Your task to perform on an android device: Add acer predator to the cart on amazon.com, then select checkout. Image 0: 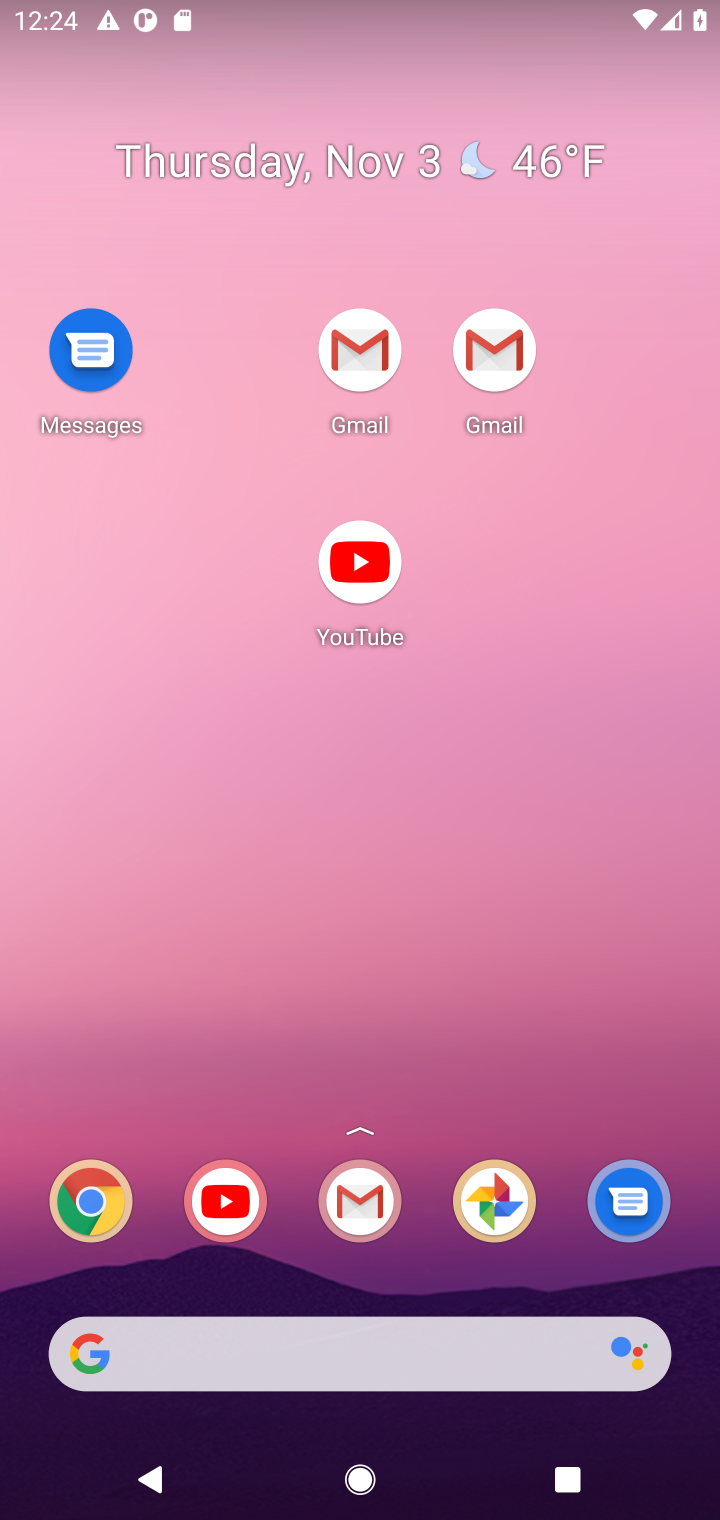
Step 0: drag from (412, 1303) to (520, 90)
Your task to perform on an android device: Add acer predator to the cart on amazon.com, then select checkout. Image 1: 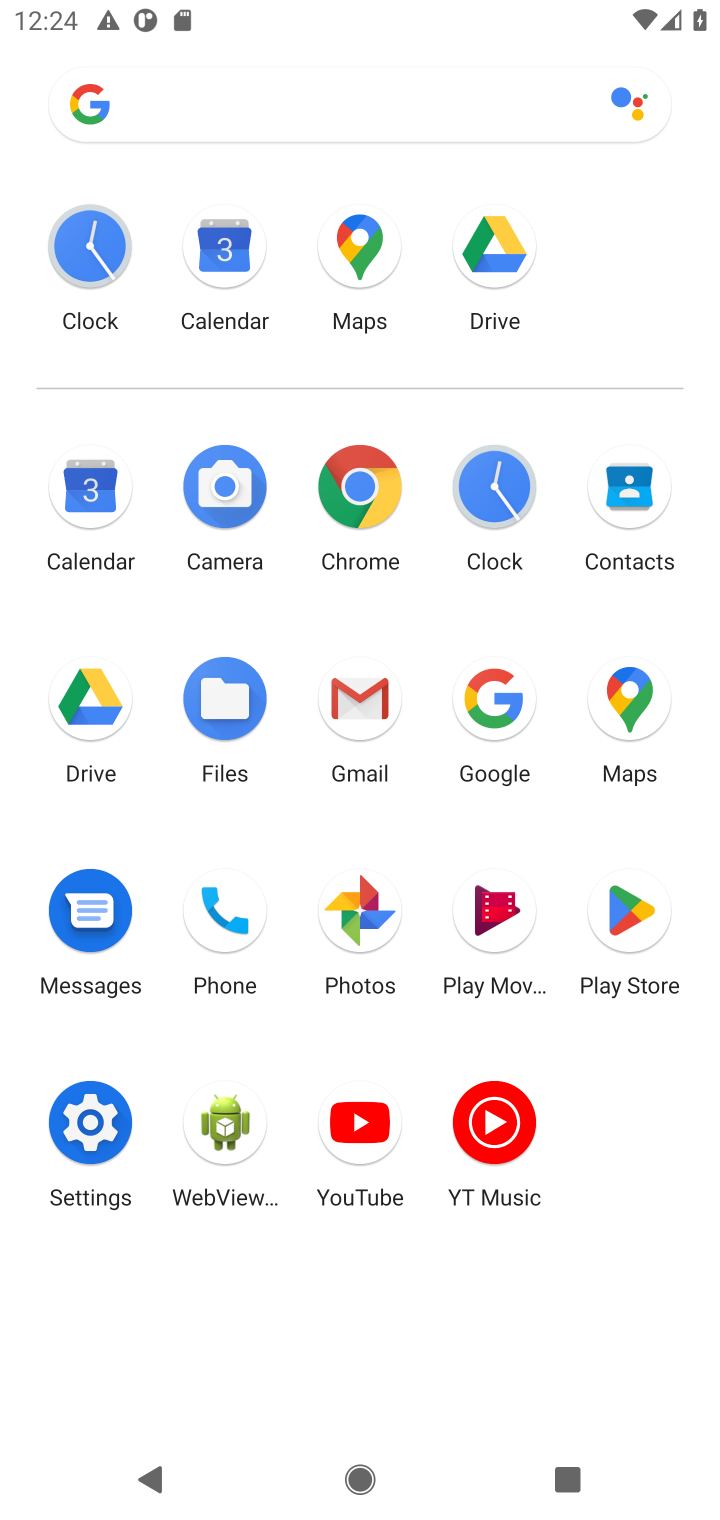
Step 1: click (363, 492)
Your task to perform on an android device: Add acer predator to the cart on amazon.com, then select checkout. Image 2: 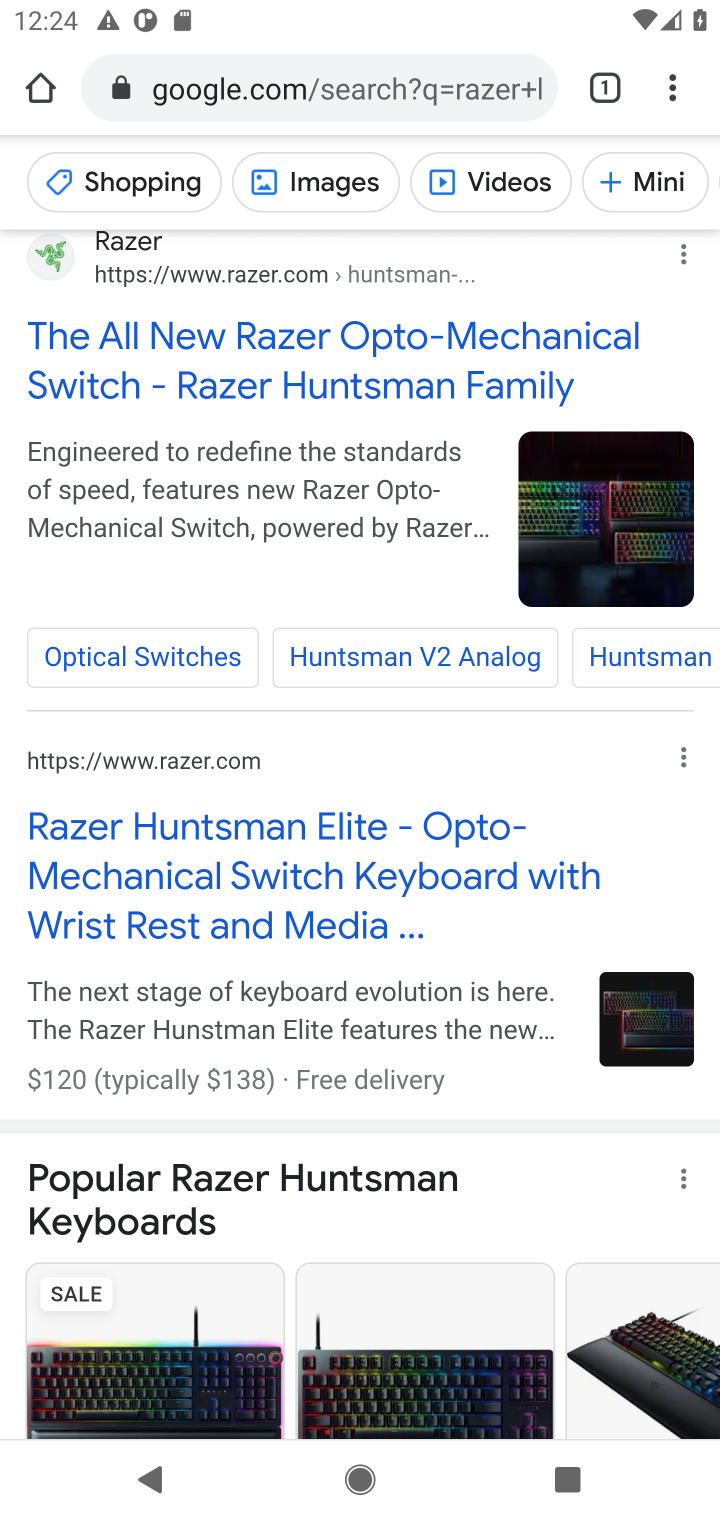
Step 2: click (384, 91)
Your task to perform on an android device: Add acer predator to the cart on amazon.com, then select checkout. Image 3: 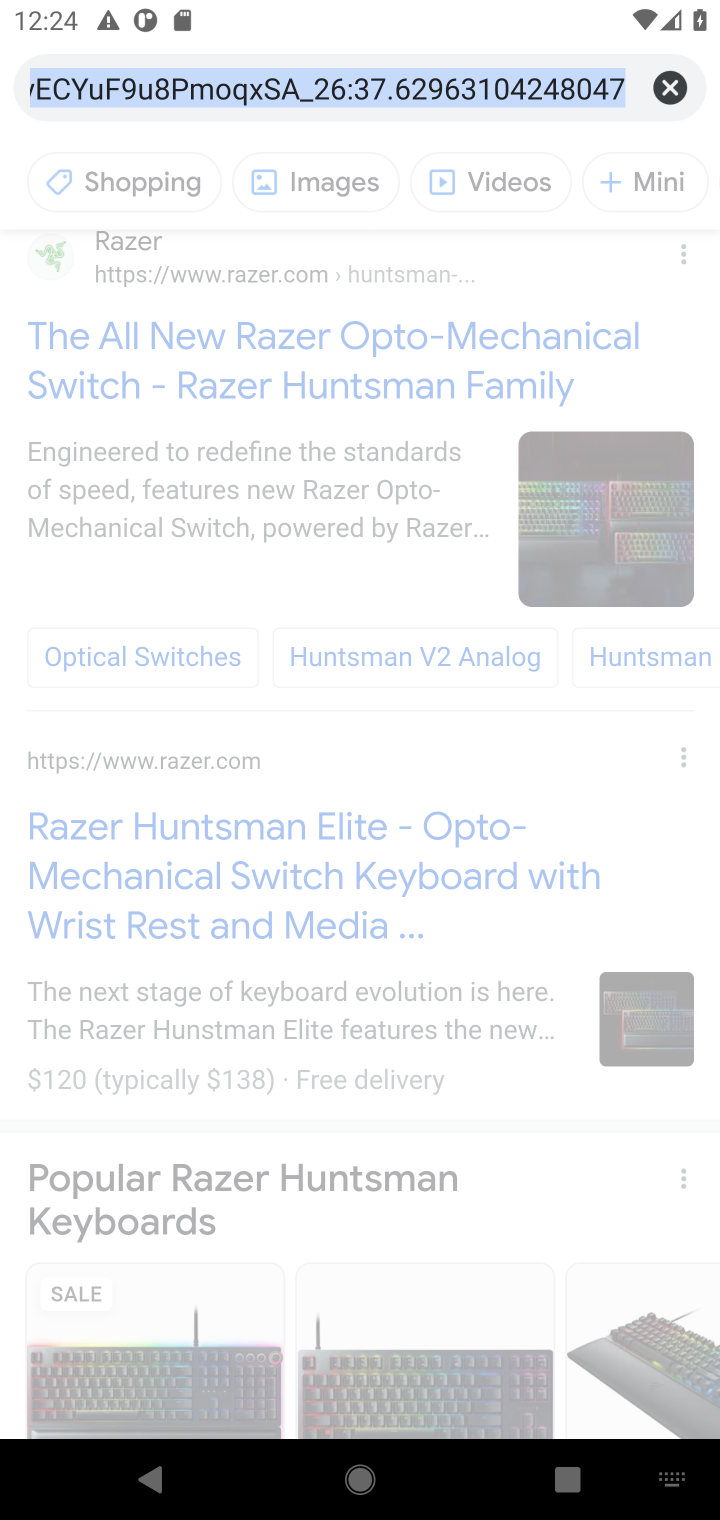
Step 3: type "amazon.com"
Your task to perform on an android device: Add acer predator to the cart on amazon.com, then select checkout. Image 4: 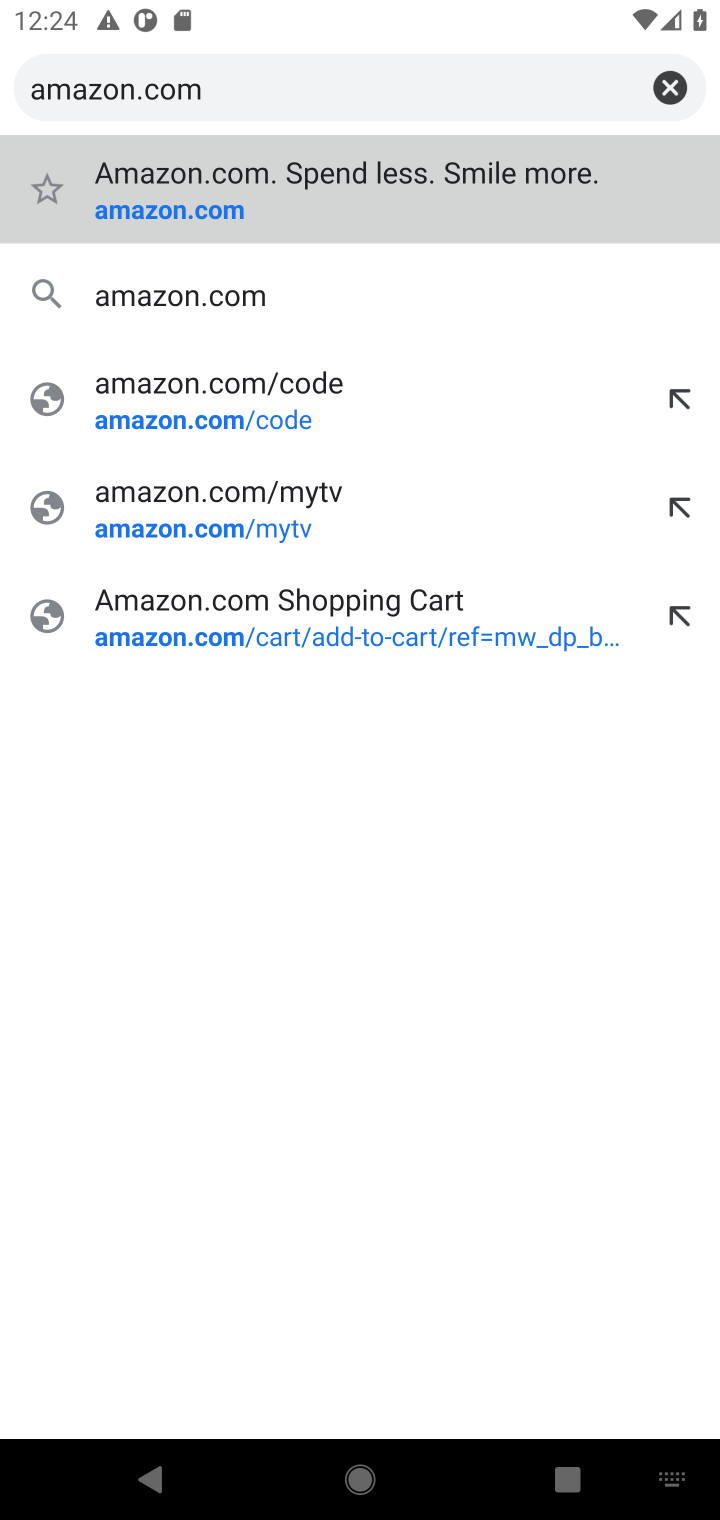
Step 4: press enter
Your task to perform on an android device: Add acer predator to the cart on amazon.com, then select checkout. Image 5: 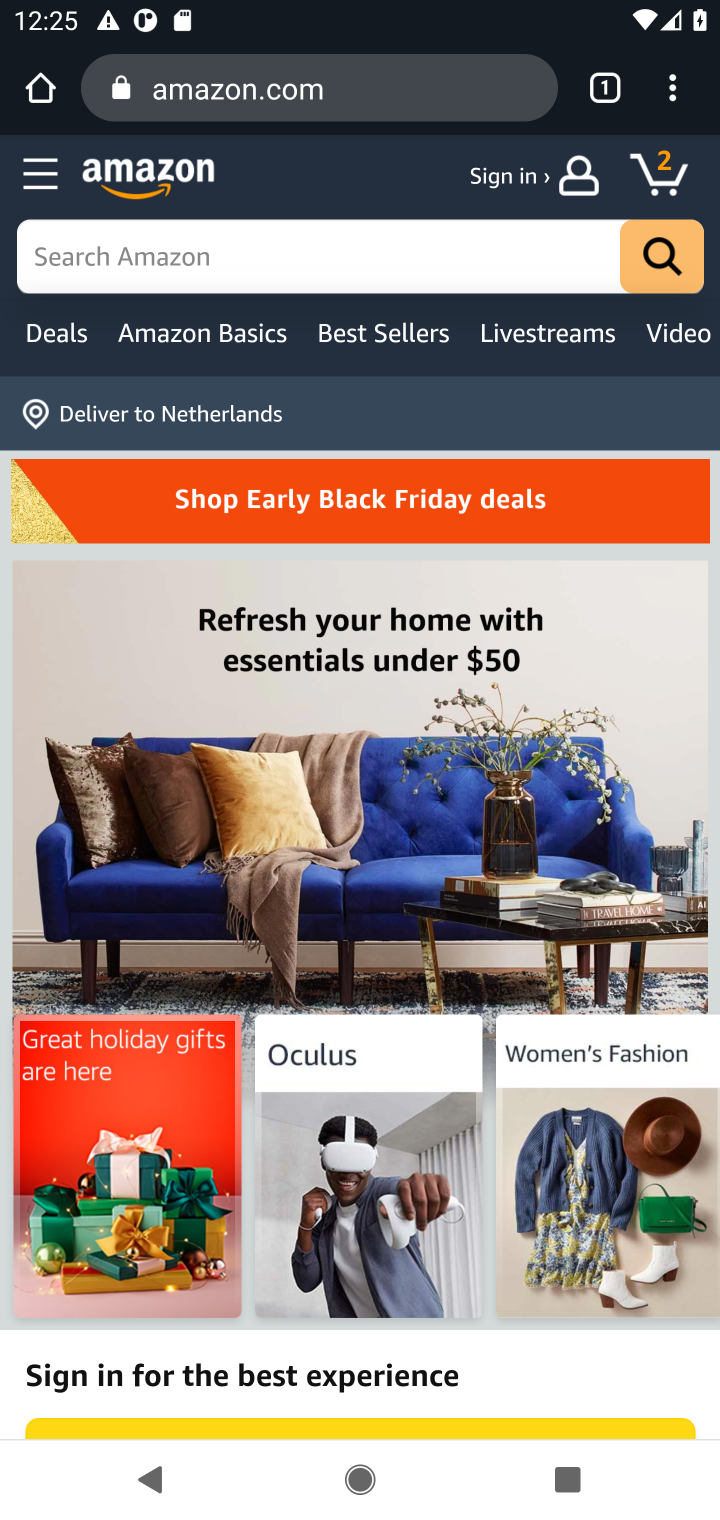
Step 5: click (368, 258)
Your task to perform on an android device: Add acer predator to the cart on amazon.com, then select checkout. Image 6: 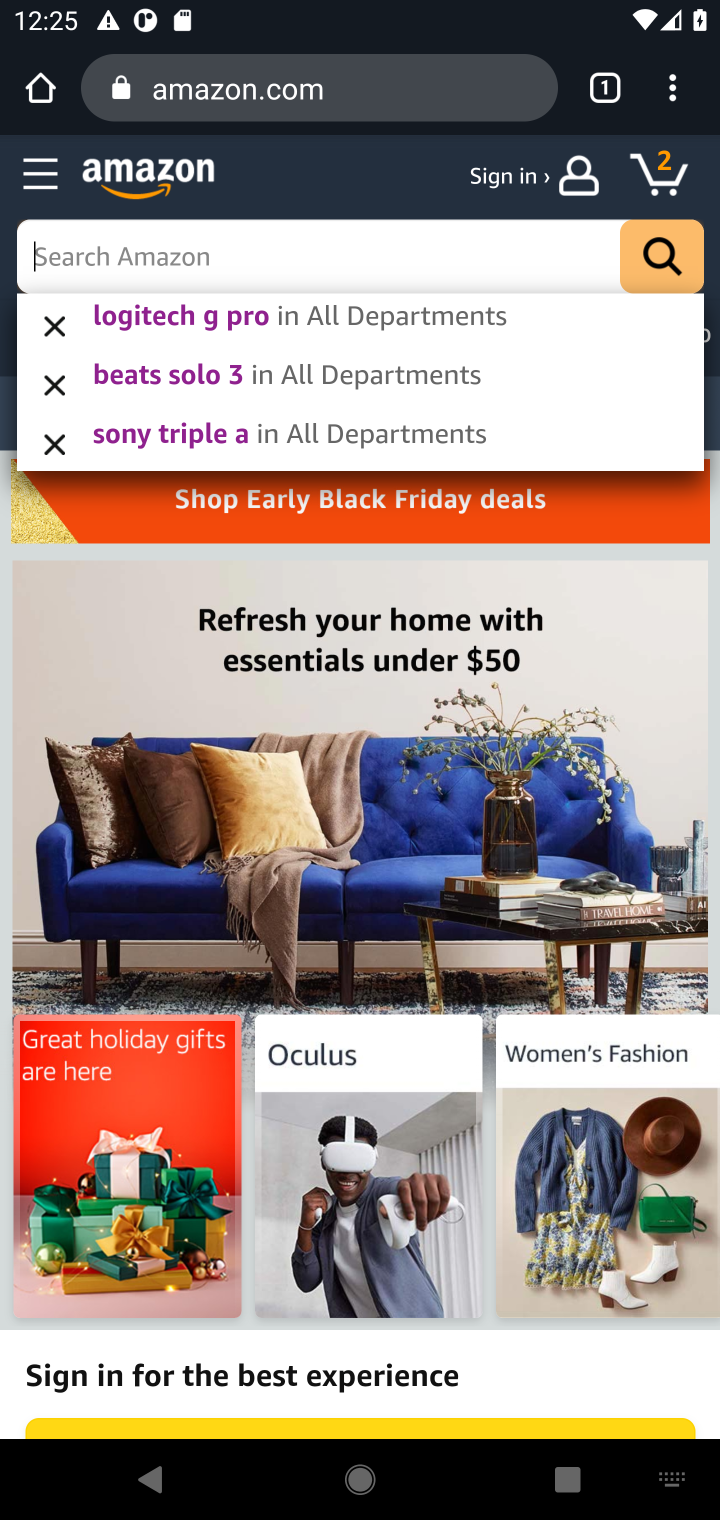
Step 6: type "acer predator"
Your task to perform on an android device: Add acer predator to the cart on amazon.com, then select checkout. Image 7: 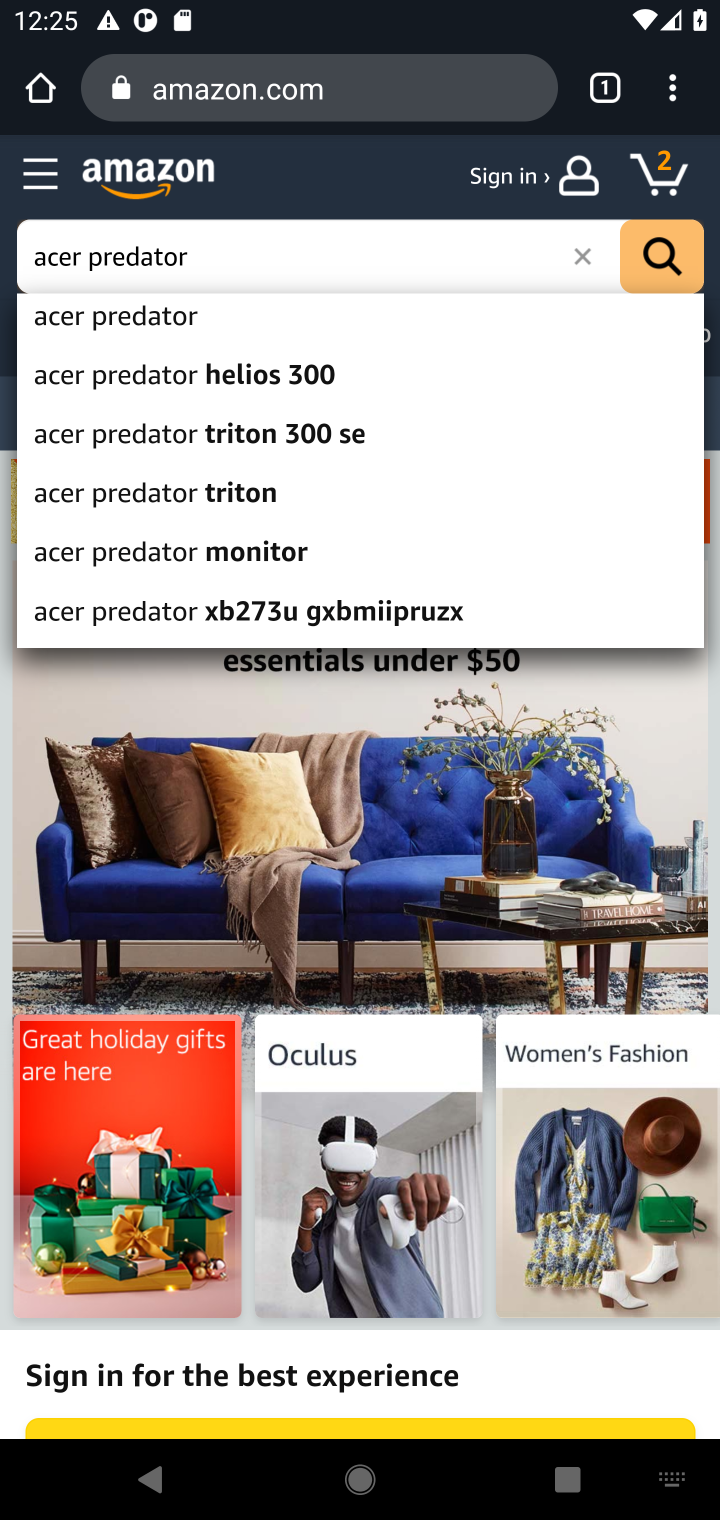
Step 7: press enter
Your task to perform on an android device: Add acer predator to the cart on amazon.com, then select checkout. Image 8: 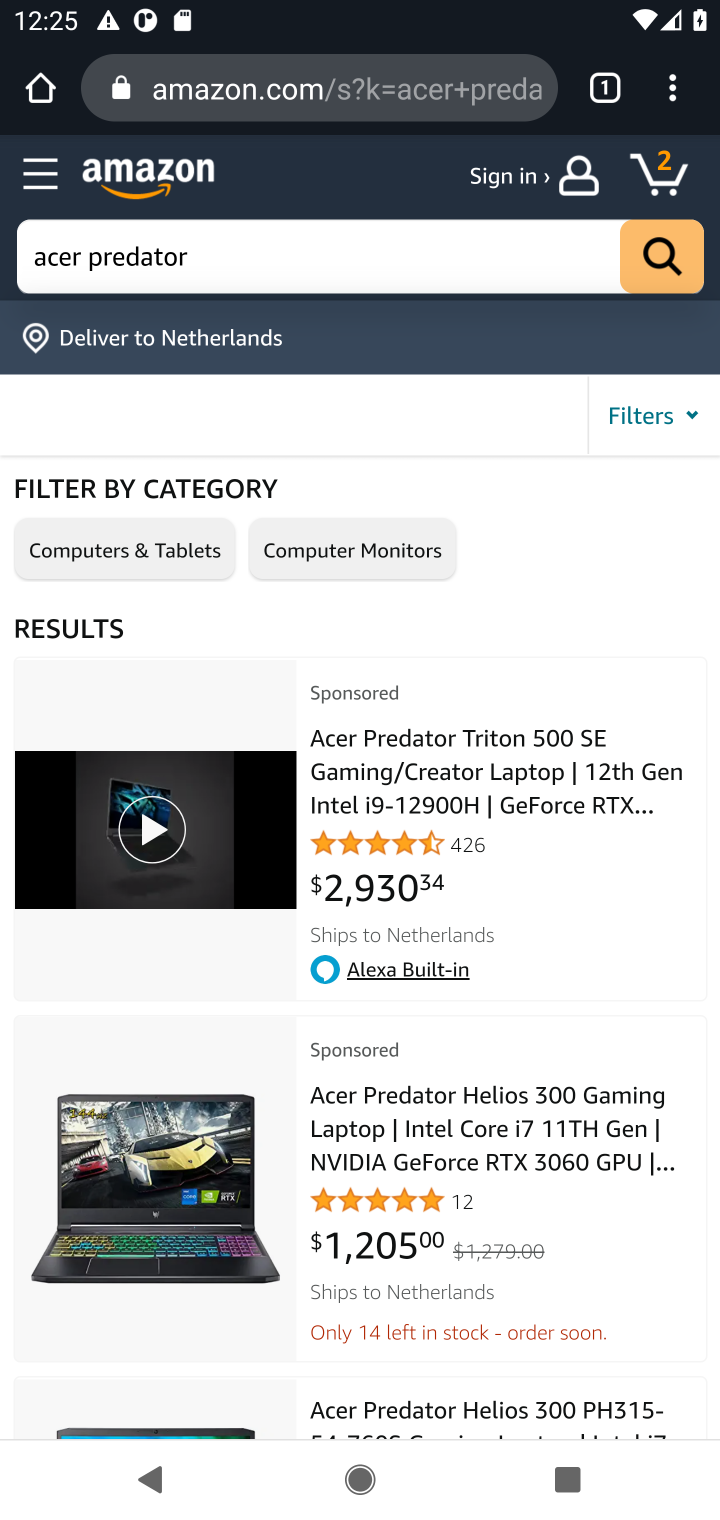
Step 8: click (355, 1129)
Your task to perform on an android device: Add acer predator to the cart on amazon.com, then select checkout. Image 9: 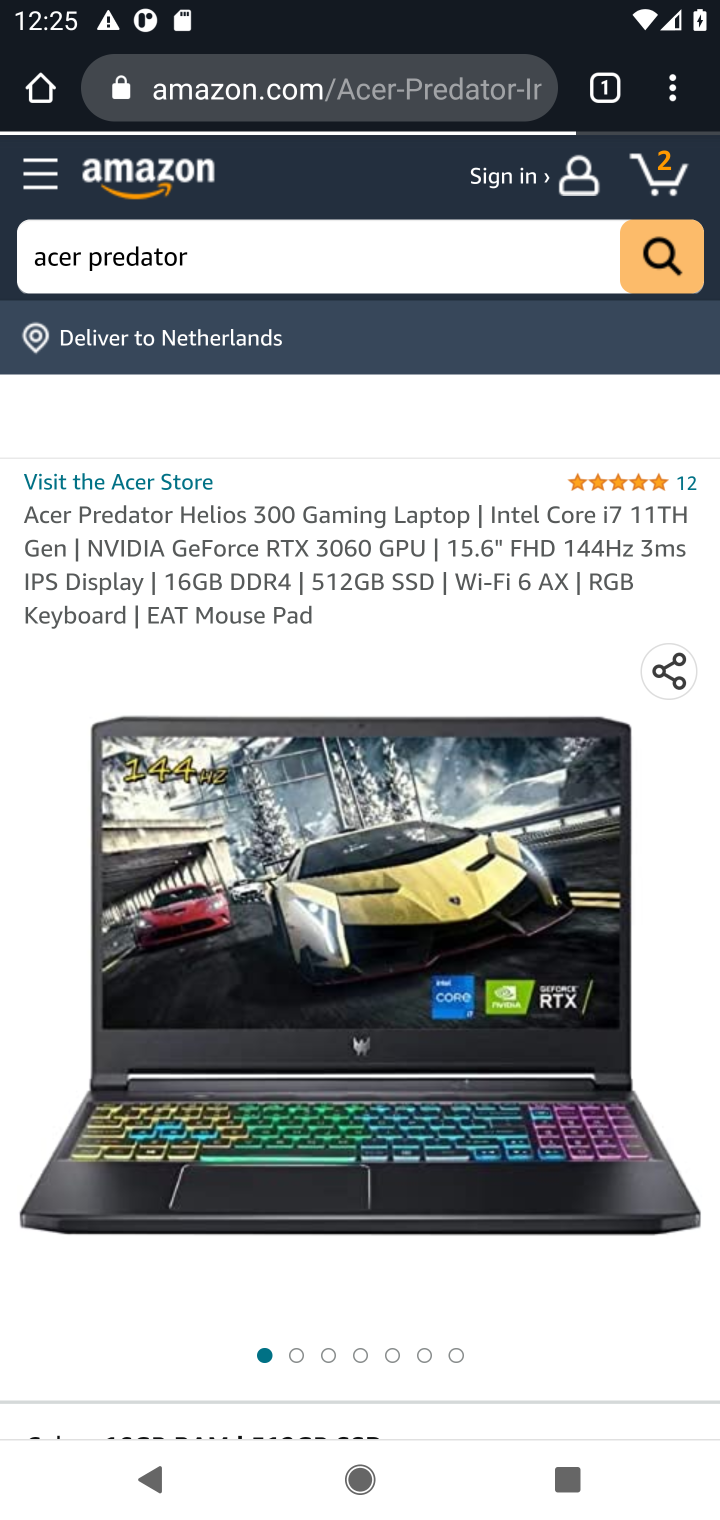
Step 9: drag from (449, 1305) to (387, 1008)
Your task to perform on an android device: Add acer predator to the cart on amazon.com, then select checkout. Image 10: 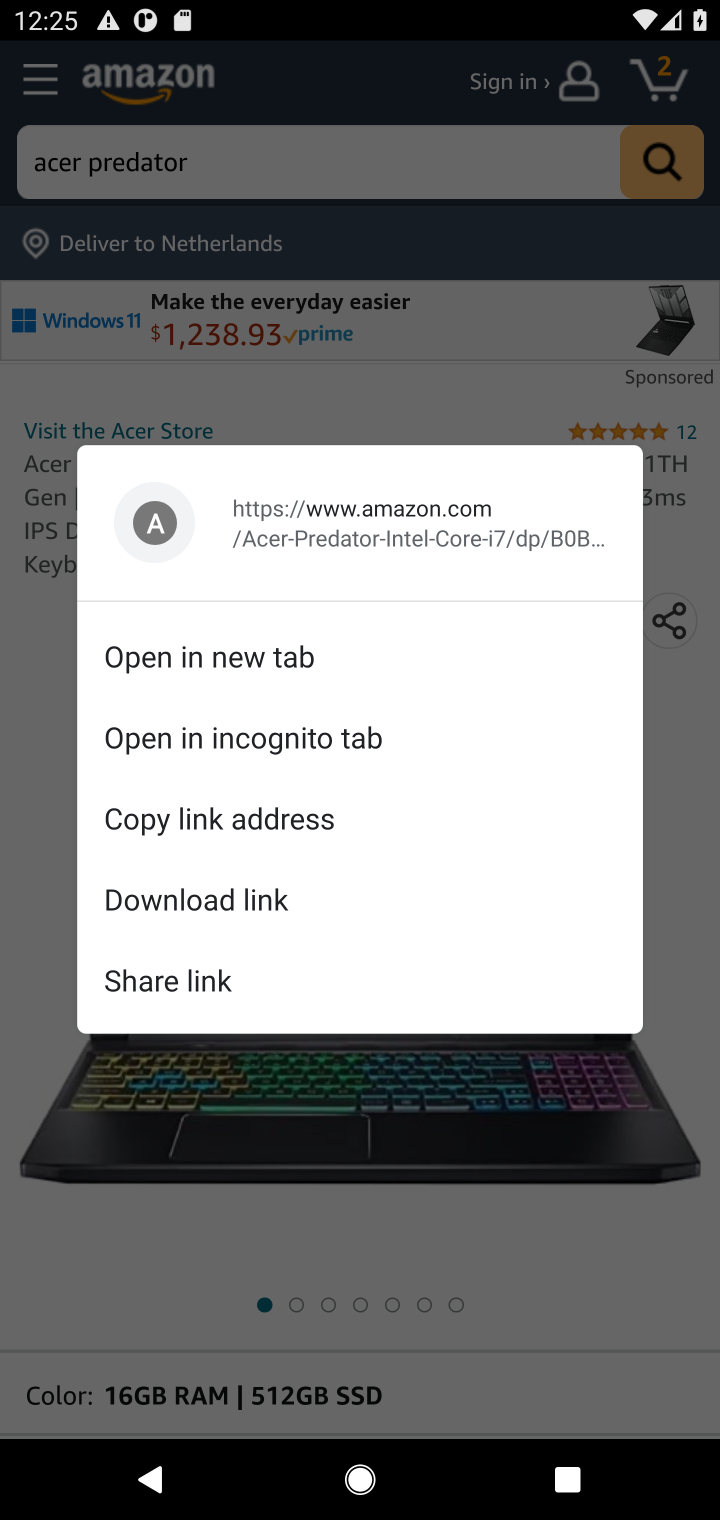
Step 10: click (425, 1249)
Your task to perform on an android device: Add acer predator to the cart on amazon.com, then select checkout. Image 11: 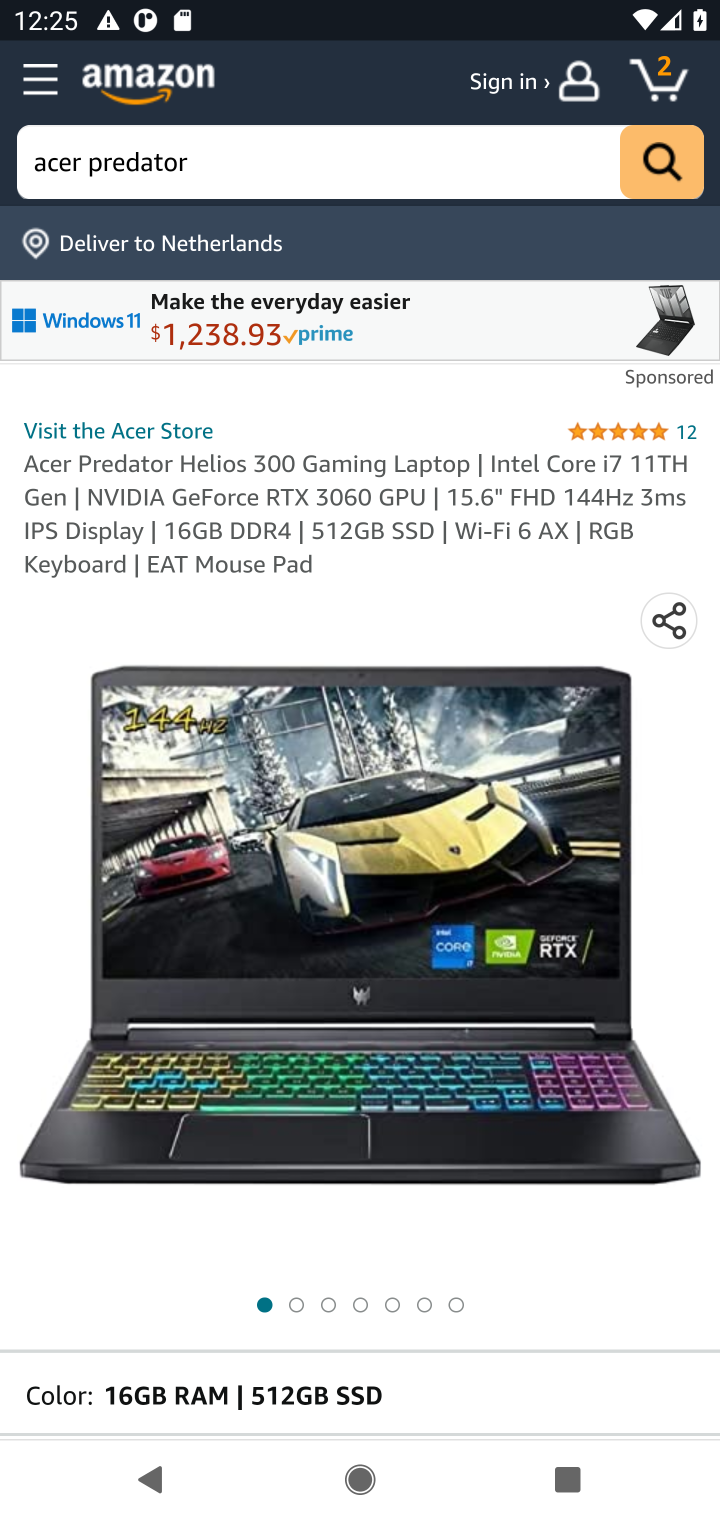
Step 11: drag from (425, 1249) to (389, 532)
Your task to perform on an android device: Add acer predator to the cart on amazon.com, then select checkout. Image 12: 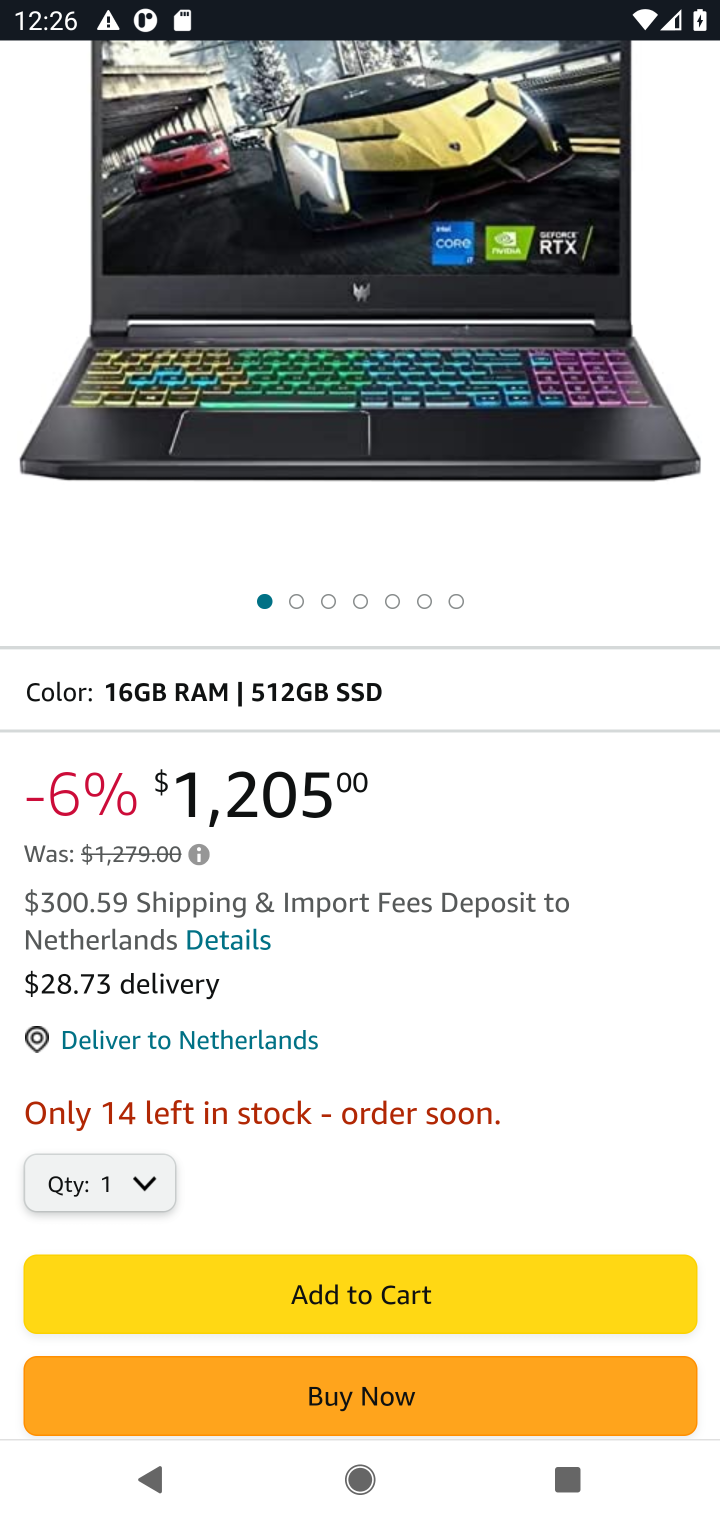
Step 12: click (377, 1292)
Your task to perform on an android device: Add acer predator to the cart on amazon.com, then select checkout. Image 13: 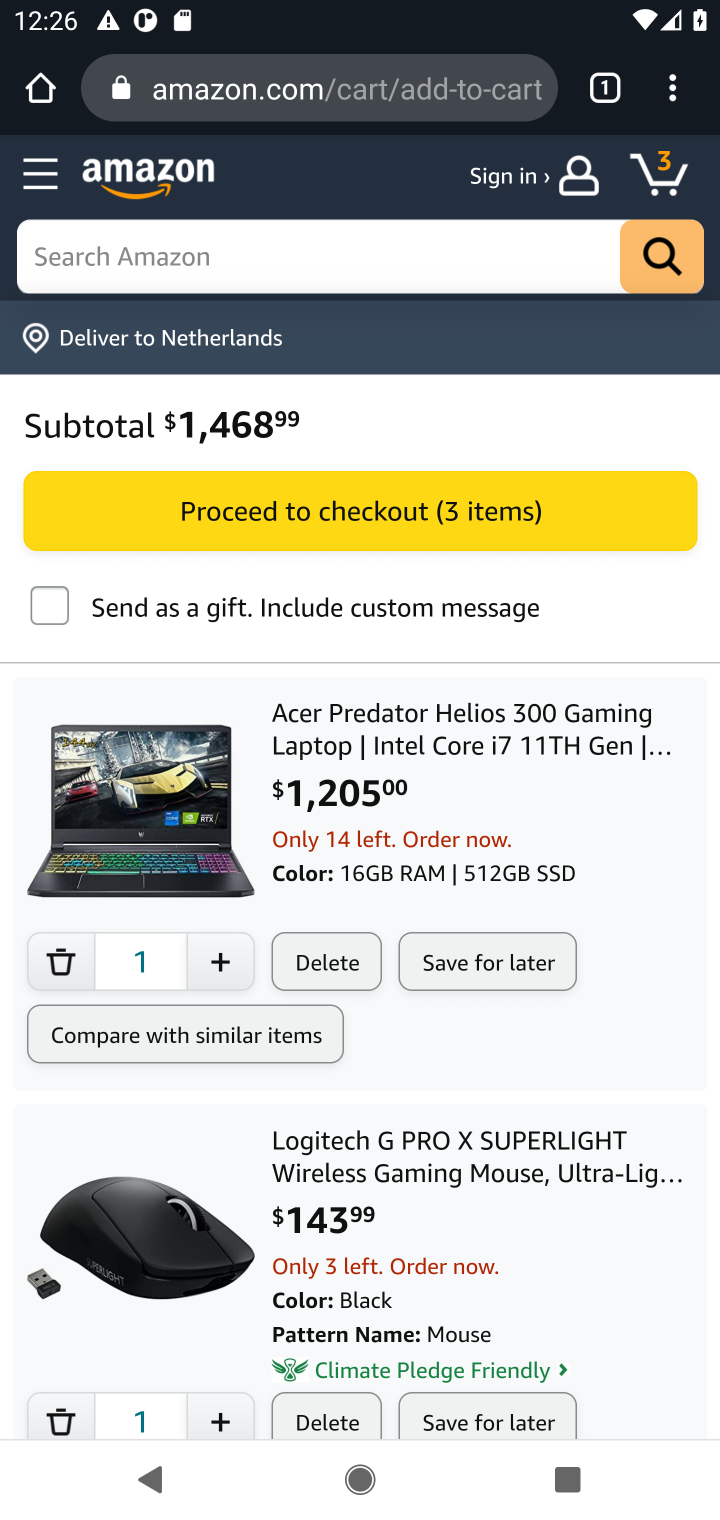
Step 13: click (333, 515)
Your task to perform on an android device: Add acer predator to the cart on amazon.com, then select checkout. Image 14: 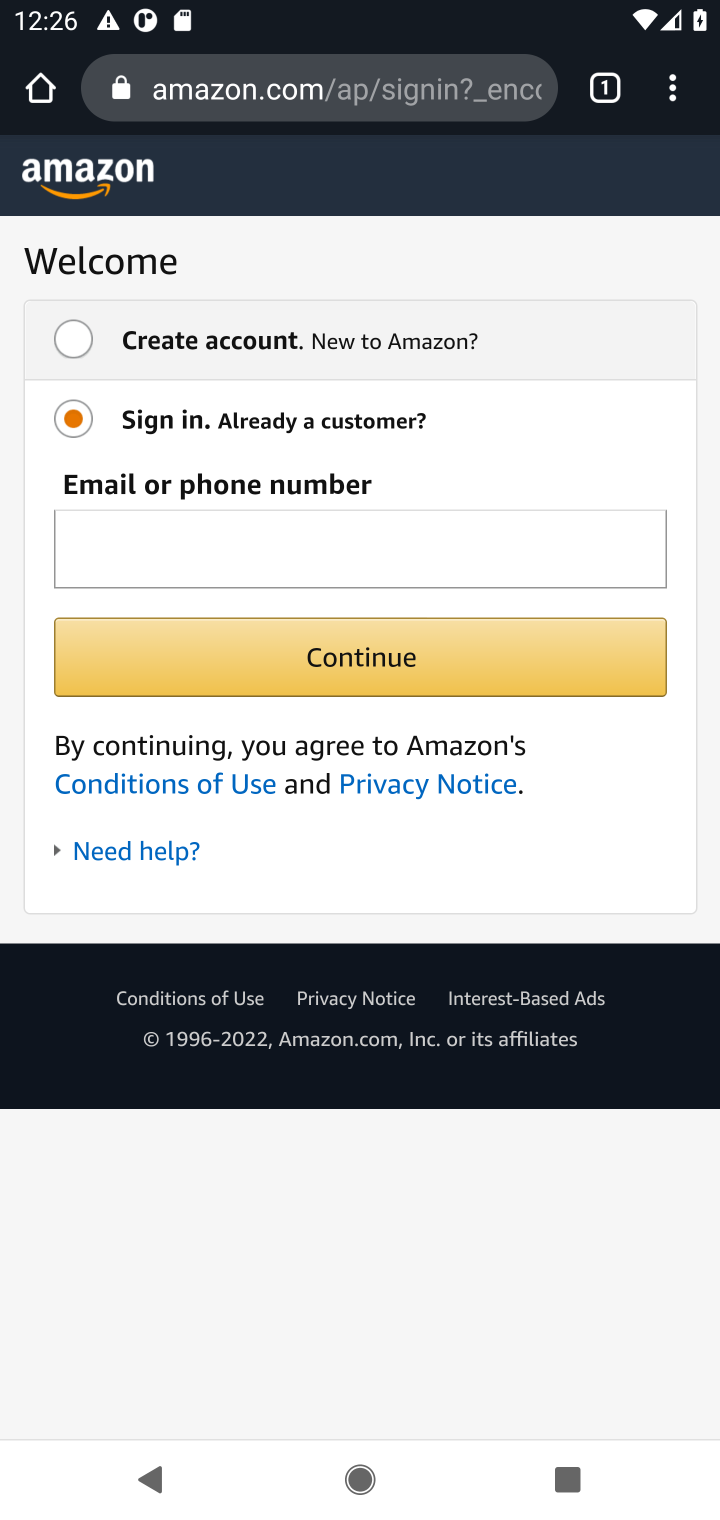
Step 14: task complete